Your task to perform on an android device: turn on data saver in the chrome app Image 0: 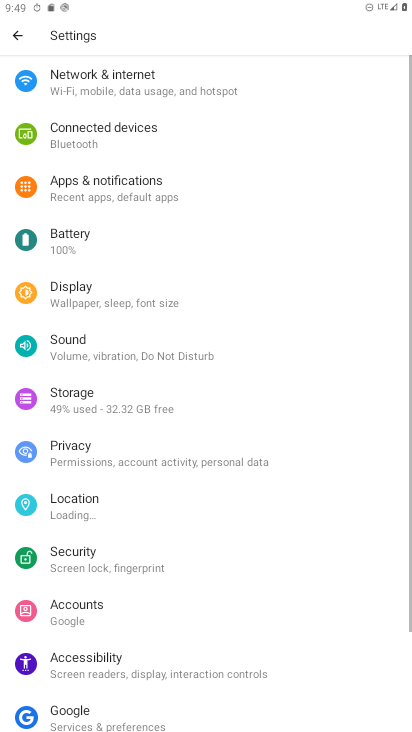
Step 0: press home button
Your task to perform on an android device: turn on data saver in the chrome app Image 1: 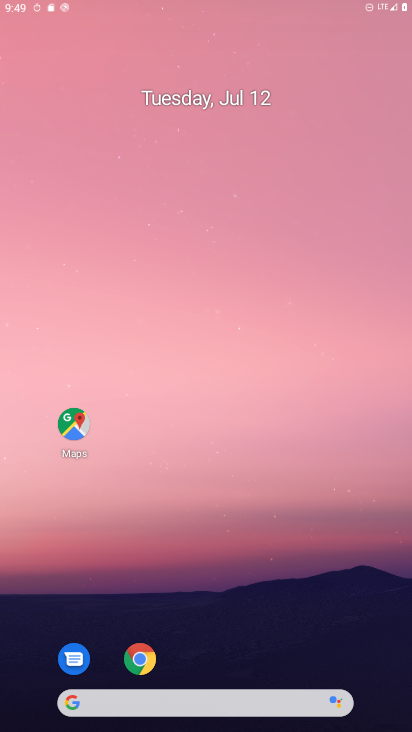
Step 1: drag from (388, 678) to (271, 62)
Your task to perform on an android device: turn on data saver in the chrome app Image 2: 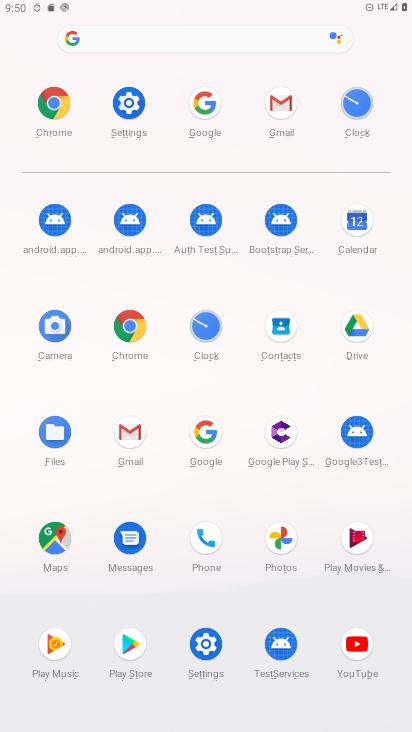
Step 2: click (122, 316)
Your task to perform on an android device: turn on data saver in the chrome app Image 3: 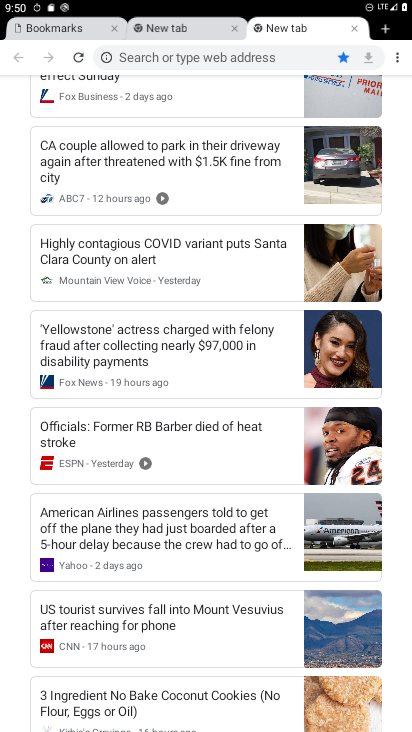
Step 3: click (400, 54)
Your task to perform on an android device: turn on data saver in the chrome app Image 4: 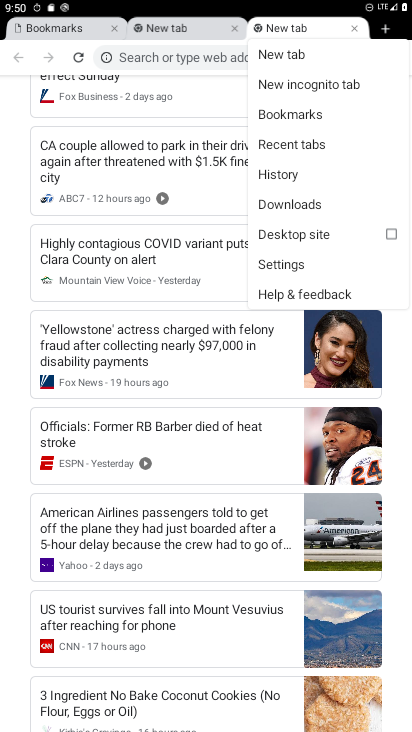
Step 4: click (295, 270)
Your task to perform on an android device: turn on data saver in the chrome app Image 5: 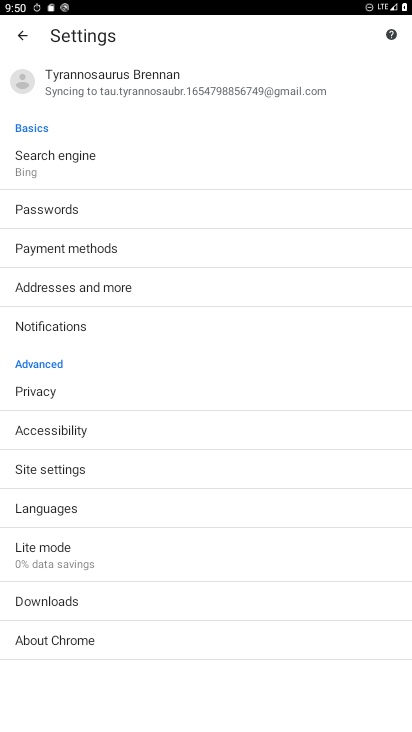
Step 5: click (56, 546)
Your task to perform on an android device: turn on data saver in the chrome app Image 6: 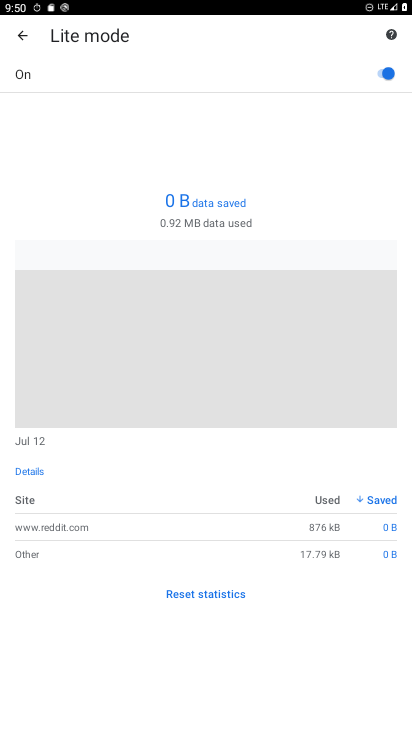
Step 6: task complete